Your task to perform on an android device: snooze an email in the gmail app Image 0: 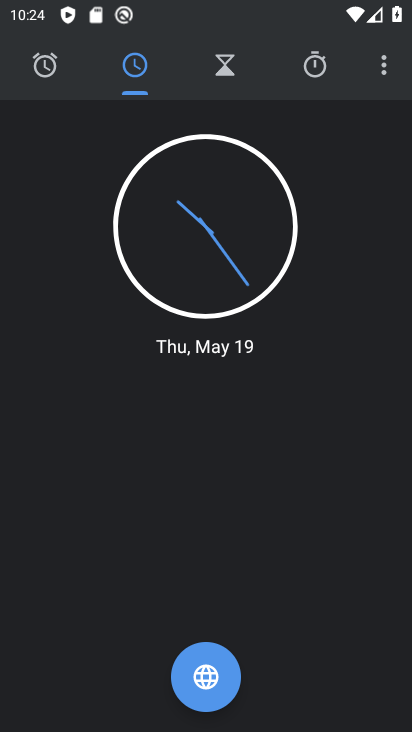
Step 0: press home button
Your task to perform on an android device: snooze an email in the gmail app Image 1: 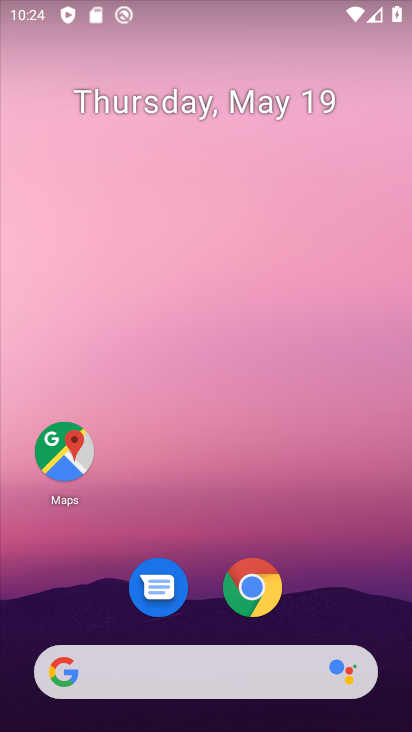
Step 1: drag from (355, 587) to (311, 230)
Your task to perform on an android device: snooze an email in the gmail app Image 2: 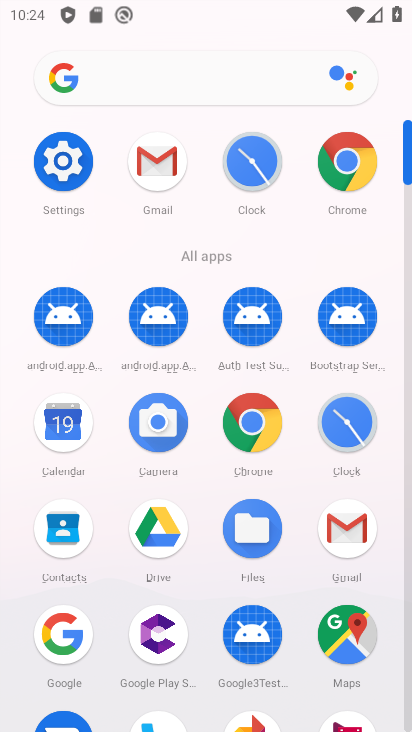
Step 2: click (334, 521)
Your task to perform on an android device: snooze an email in the gmail app Image 3: 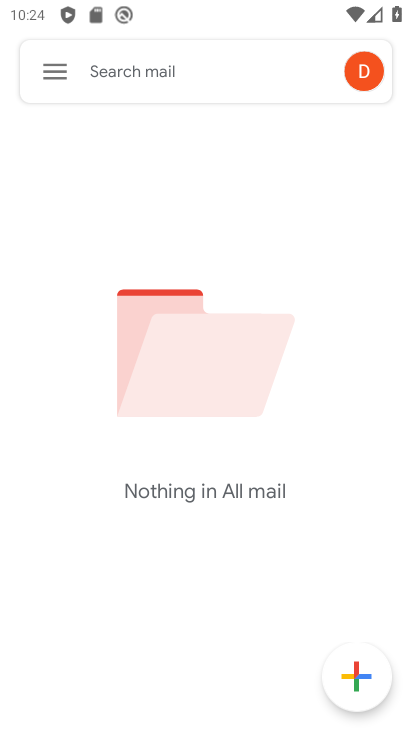
Step 3: click (54, 66)
Your task to perform on an android device: snooze an email in the gmail app Image 4: 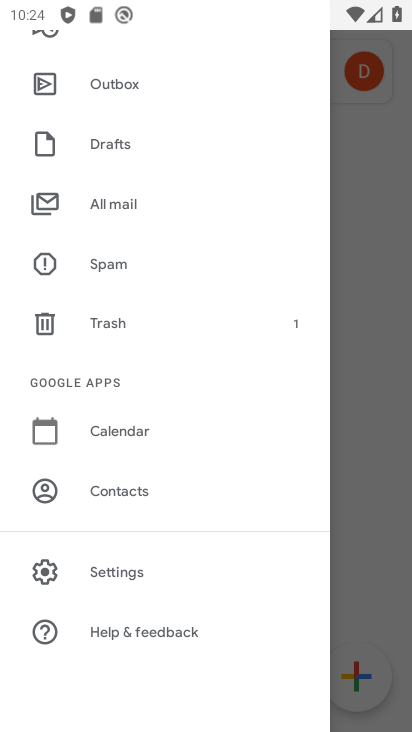
Step 4: click (137, 200)
Your task to perform on an android device: snooze an email in the gmail app Image 5: 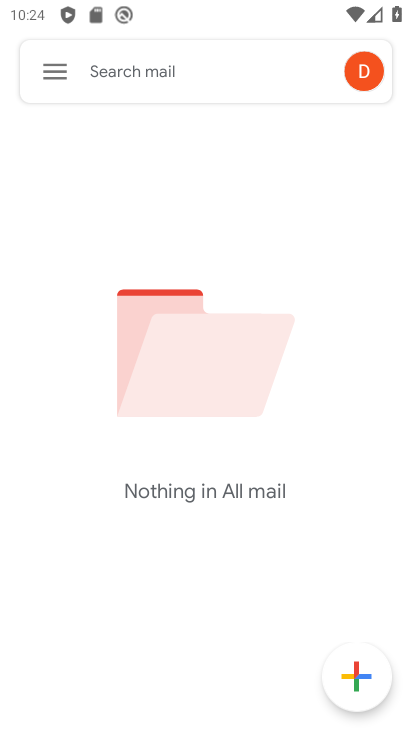
Step 5: task complete